Your task to perform on an android device: Open the web browser Image 0: 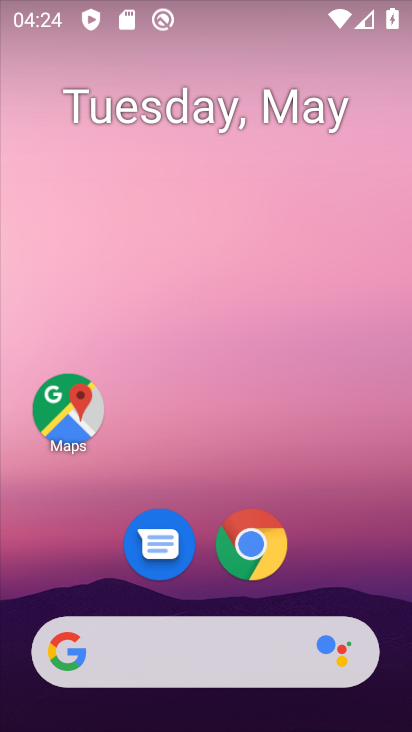
Step 0: click (241, 558)
Your task to perform on an android device: Open the web browser Image 1: 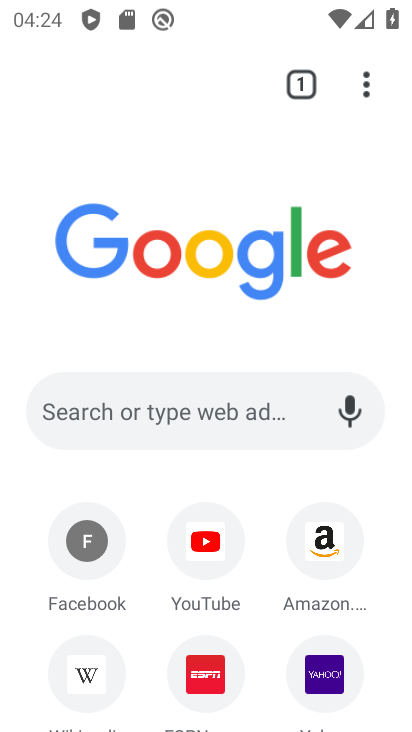
Step 1: task complete